Your task to perform on an android device: turn off airplane mode Image 0: 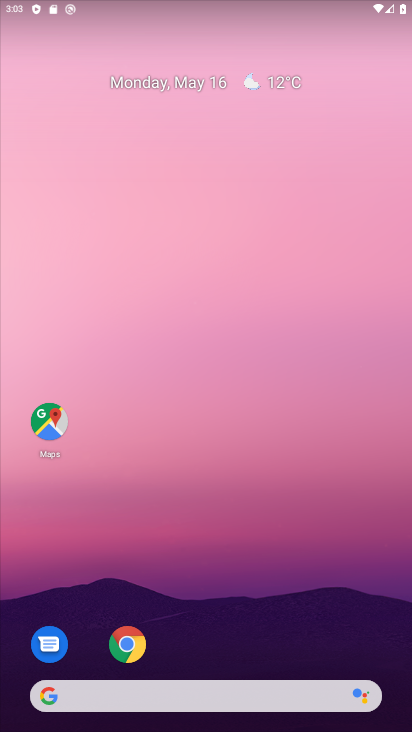
Step 0: drag from (297, 5) to (239, 306)
Your task to perform on an android device: turn off airplane mode Image 1: 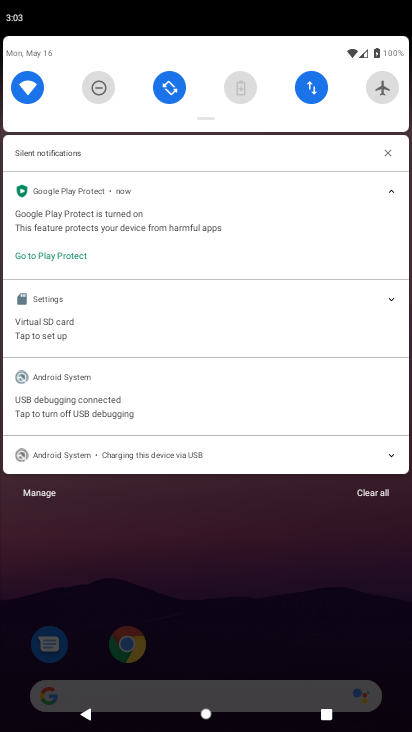
Step 1: task complete